Your task to perform on an android device: Search for vegetarian restaurants on Maps Image 0: 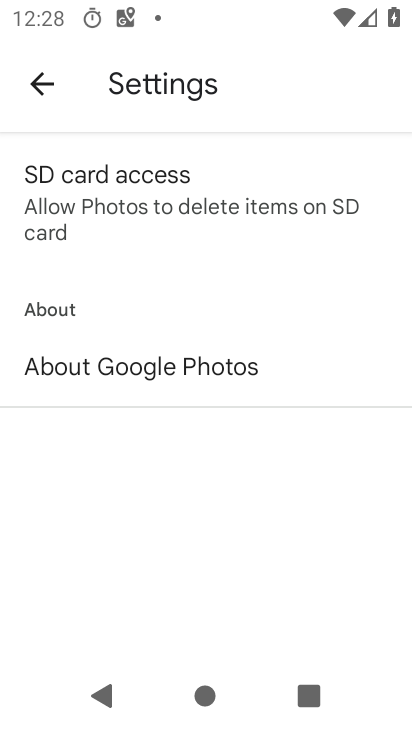
Step 0: press home button
Your task to perform on an android device: Search for vegetarian restaurants on Maps Image 1: 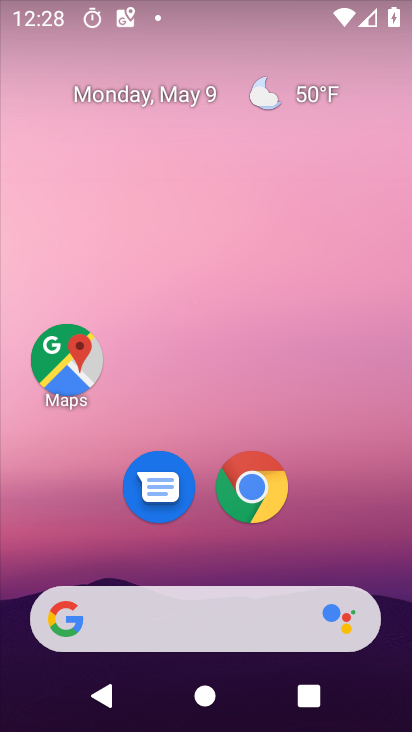
Step 1: click (98, 351)
Your task to perform on an android device: Search for vegetarian restaurants on Maps Image 2: 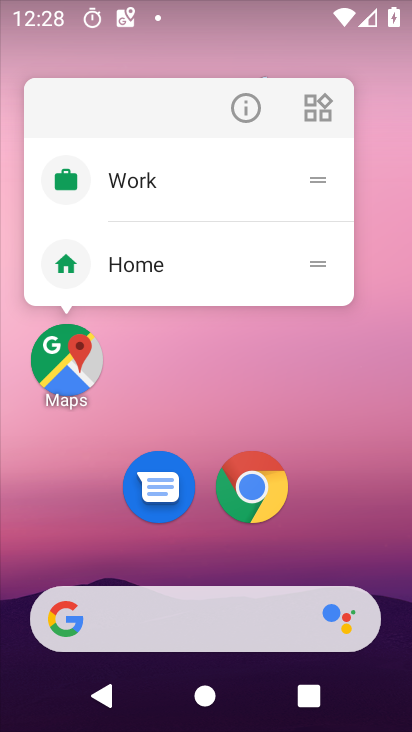
Step 2: click (80, 373)
Your task to perform on an android device: Search for vegetarian restaurants on Maps Image 3: 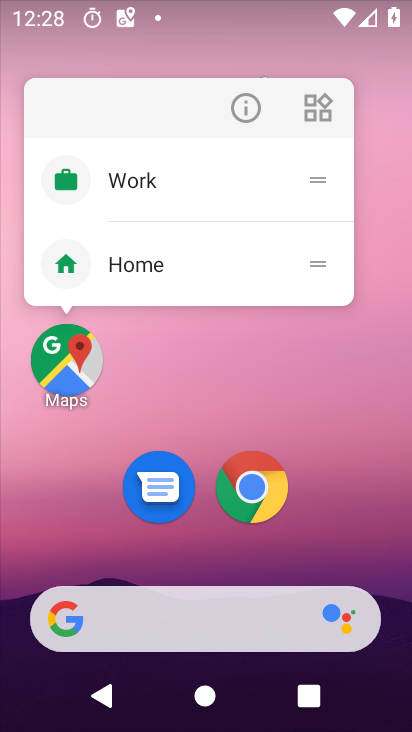
Step 3: click (80, 373)
Your task to perform on an android device: Search for vegetarian restaurants on Maps Image 4: 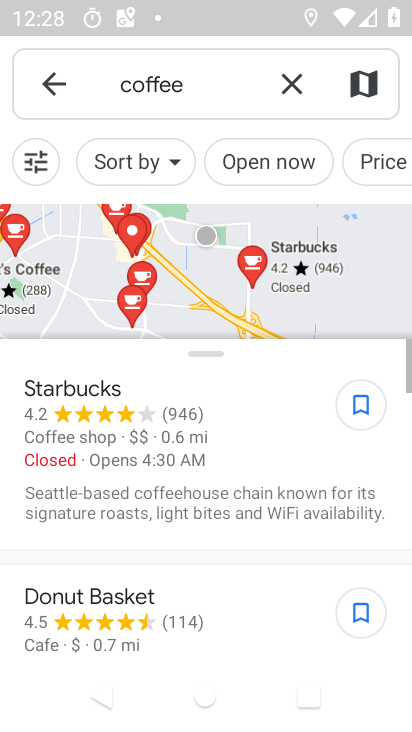
Step 4: click (295, 88)
Your task to perform on an android device: Search for vegetarian restaurants on Maps Image 5: 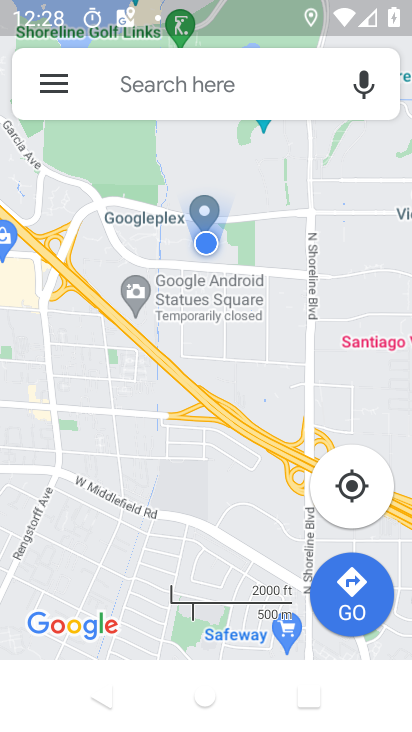
Step 5: click (181, 96)
Your task to perform on an android device: Search for vegetarian restaurants on Maps Image 6: 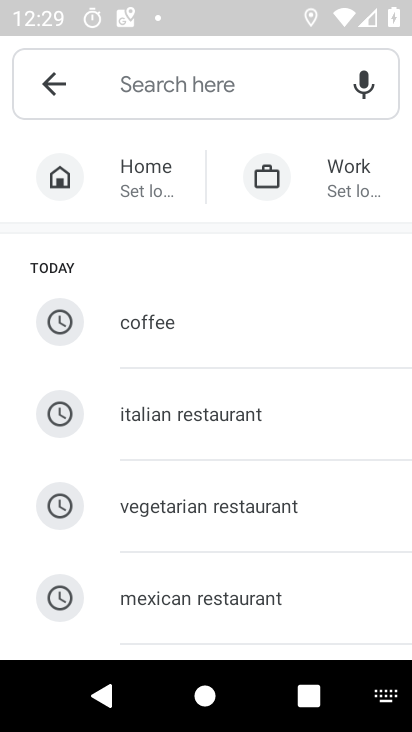
Step 6: click (261, 501)
Your task to perform on an android device: Search for vegetarian restaurants on Maps Image 7: 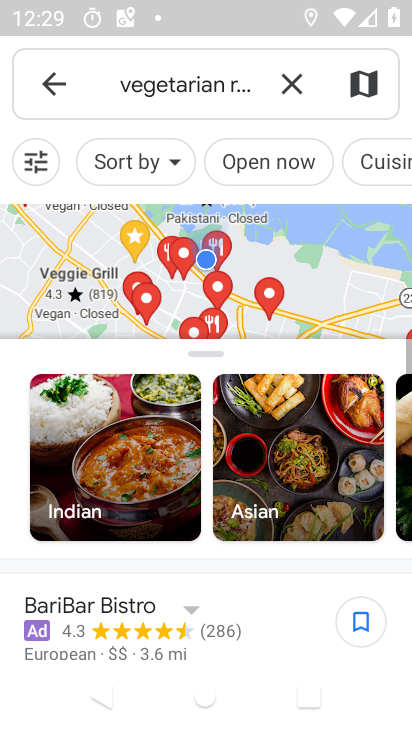
Step 7: task complete